Your task to perform on an android device: delete browsing data in the chrome app Image 0: 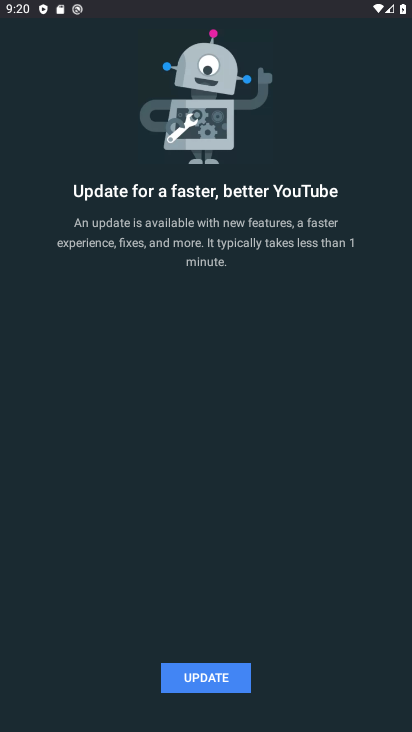
Step 0: press home button
Your task to perform on an android device: delete browsing data in the chrome app Image 1: 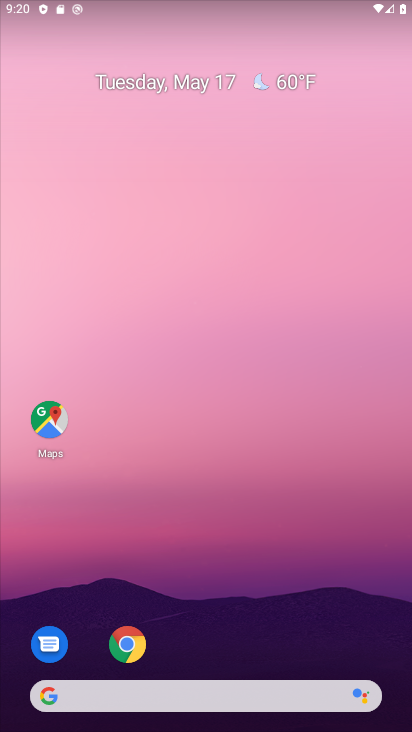
Step 1: click (142, 644)
Your task to perform on an android device: delete browsing data in the chrome app Image 2: 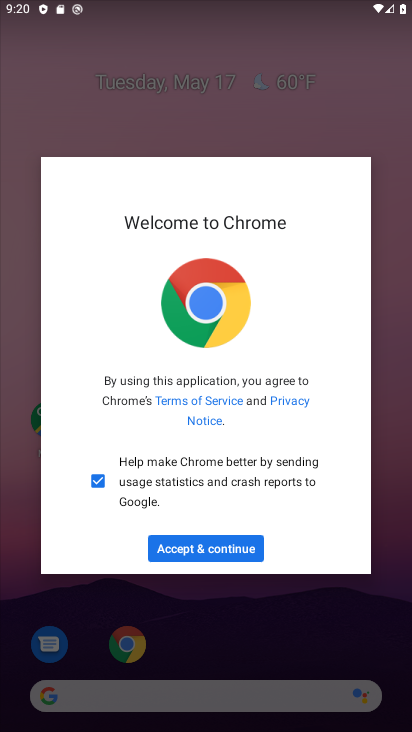
Step 2: click (192, 545)
Your task to perform on an android device: delete browsing data in the chrome app Image 3: 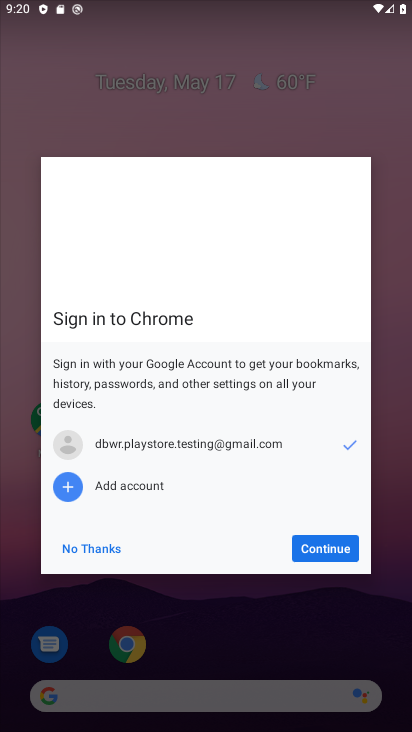
Step 3: click (319, 554)
Your task to perform on an android device: delete browsing data in the chrome app Image 4: 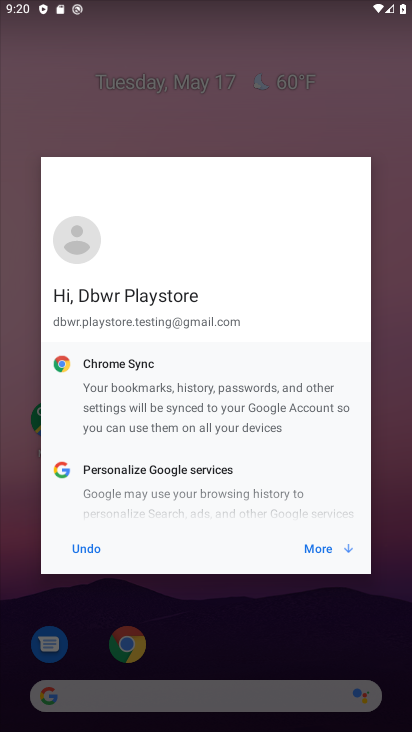
Step 4: click (323, 556)
Your task to perform on an android device: delete browsing data in the chrome app Image 5: 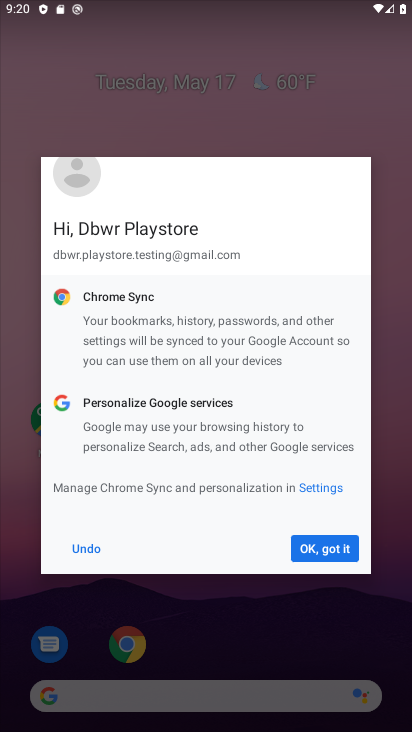
Step 5: click (323, 556)
Your task to perform on an android device: delete browsing data in the chrome app Image 6: 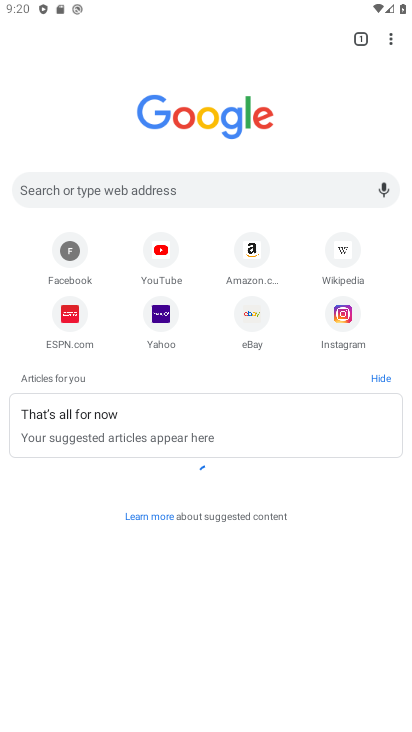
Step 6: click (390, 37)
Your task to perform on an android device: delete browsing data in the chrome app Image 7: 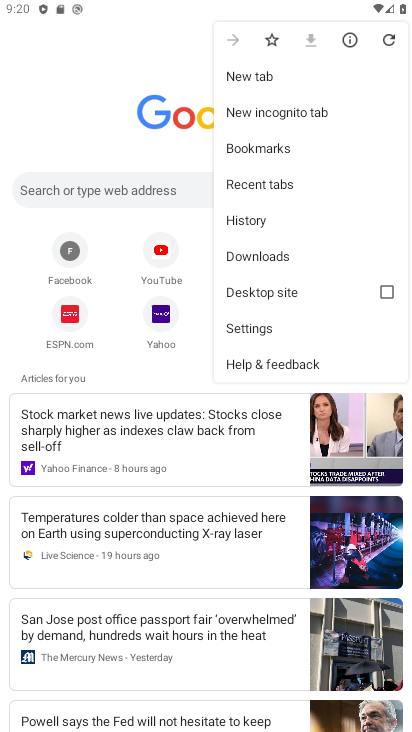
Step 7: click (255, 219)
Your task to perform on an android device: delete browsing data in the chrome app Image 8: 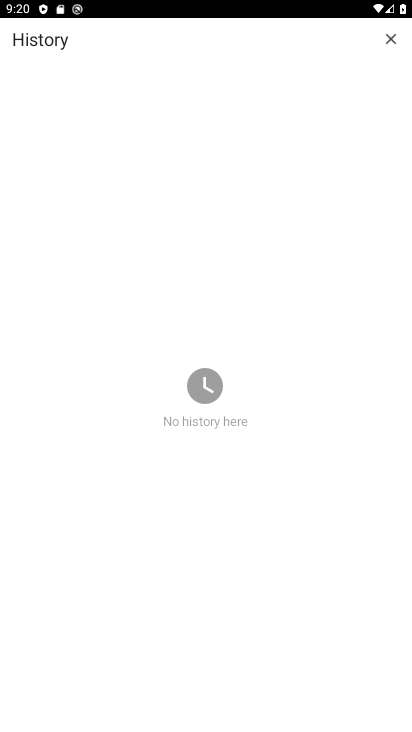
Step 8: task complete